Your task to perform on an android device: turn off sleep mode Image 0: 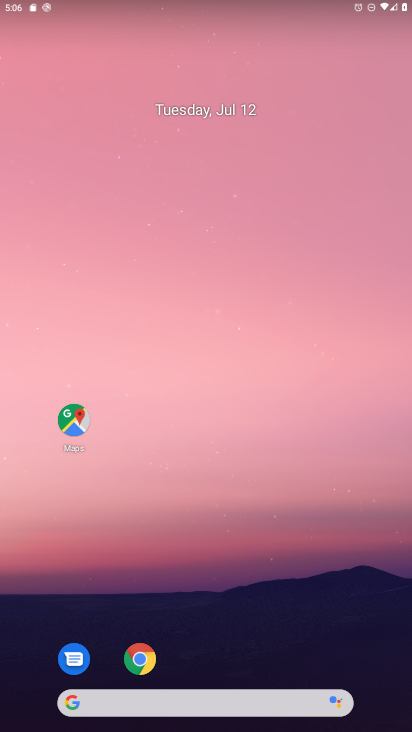
Step 0: drag from (220, 49) to (187, 35)
Your task to perform on an android device: turn off sleep mode Image 1: 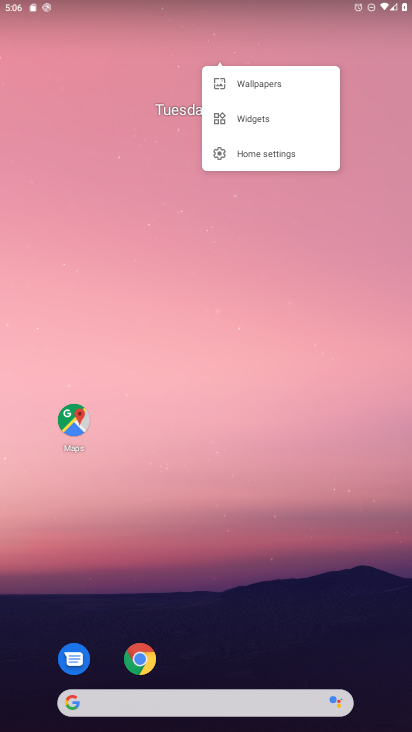
Step 1: click (188, 585)
Your task to perform on an android device: turn off sleep mode Image 2: 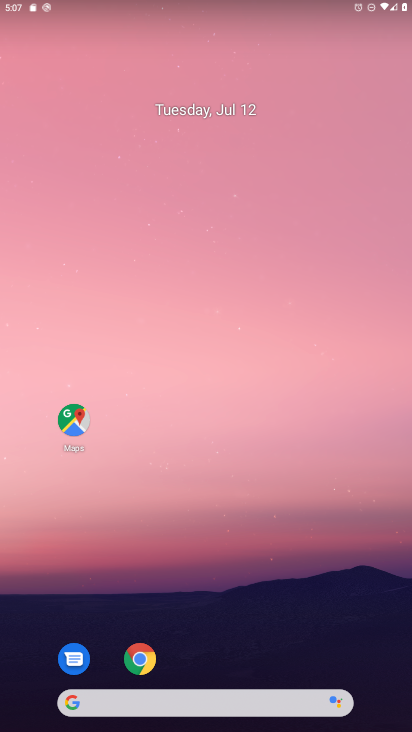
Step 2: drag from (181, 629) to (242, 44)
Your task to perform on an android device: turn off sleep mode Image 3: 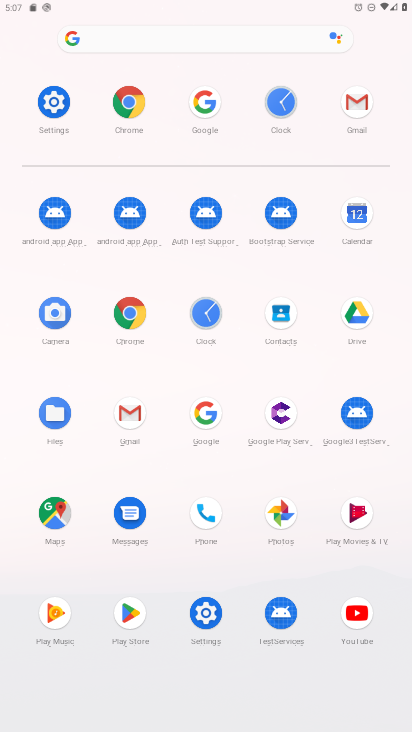
Step 3: click (58, 104)
Your task to perform on an android device: turn off sleep mode Image 4: 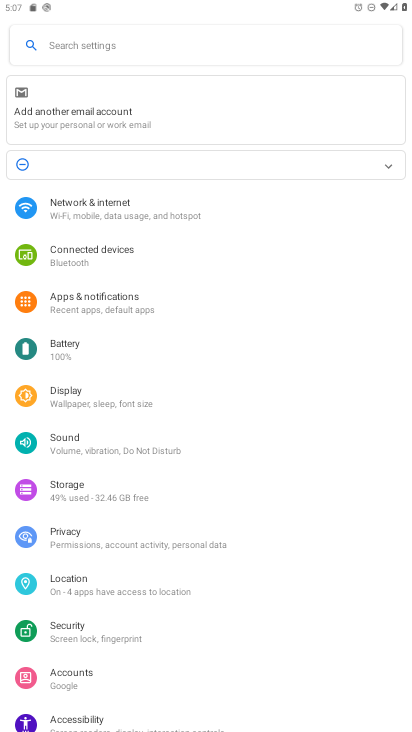
Step 4: task complete